Your task to perform on an android device: check android version Image 0: 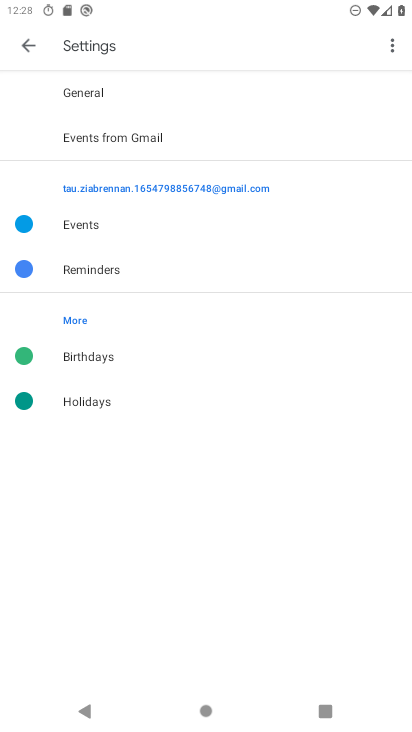
Step 0: press home button
Your task to perform on an android device: check android version Image 1: 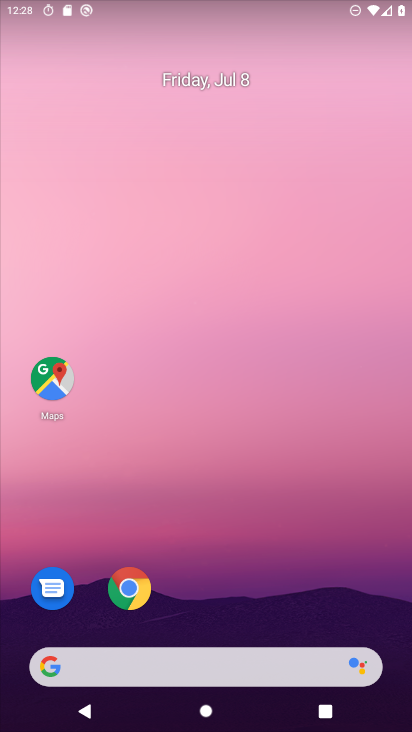
Step 1: drag from (305, 562) to (237, 60)
Your task to perform on an android device: check android version Image 2: 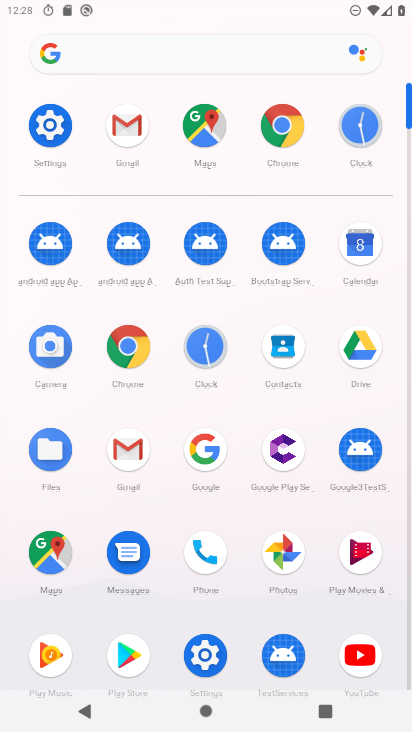
Step 2: click (59, 122)
Your task to perform on an android device: check android version Image 3: 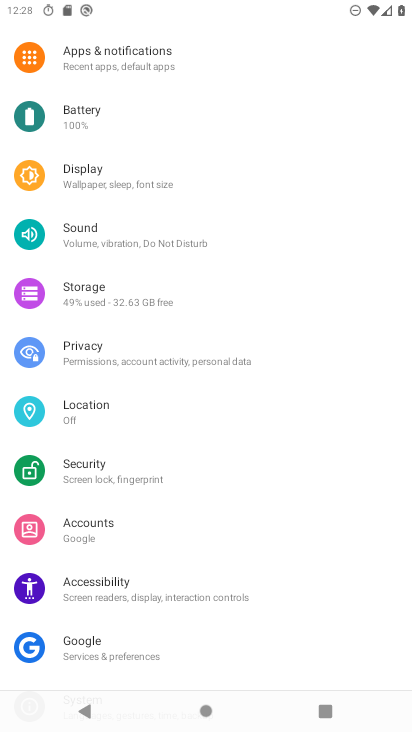
Step 3: drag from (225, 605) to (227, 6)
Your task to perform on an android device: check android version Image 4: 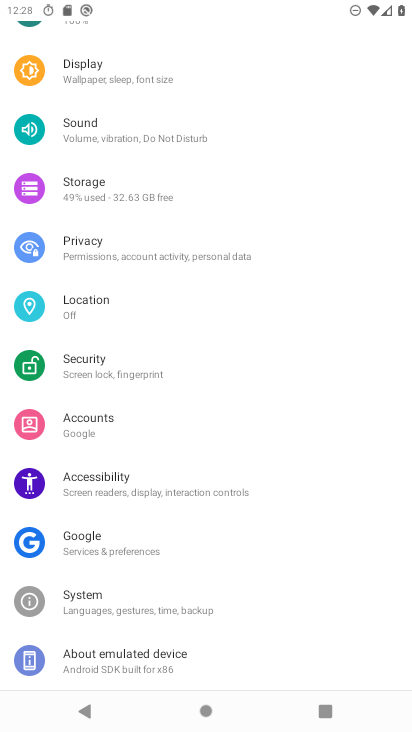
Step 4: click (115, 658)
Your task to perform on an android device: check android version Image 5: 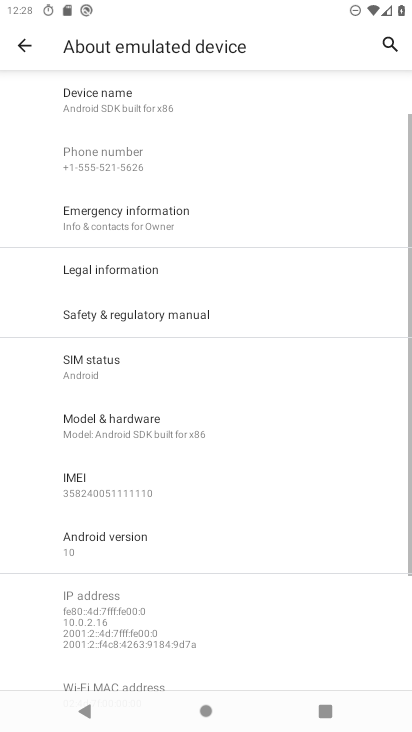
Step 5: click (122, 546)
Your task to perform on an android device: check android version Image 6: 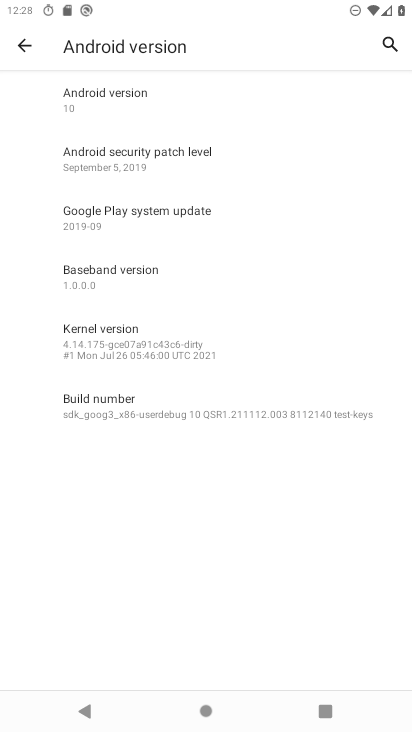
Step 6: click (156, 112)
Your task to perform on an android device: check android version Image 7: 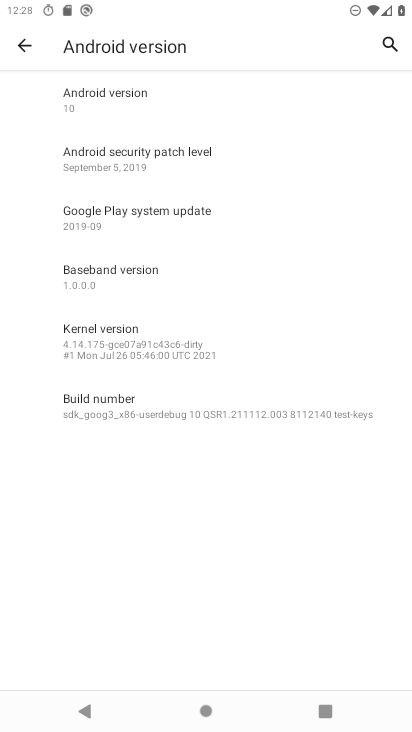
Step 7: task complete